Your task to perform on an android device: Open accessibility settings Image 0: 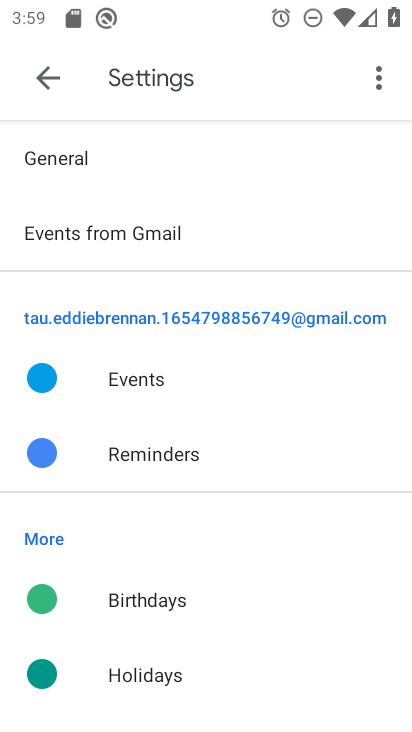
Step 0: press home button
Your task to perform on an android device: Open accessibility settings Image 1: 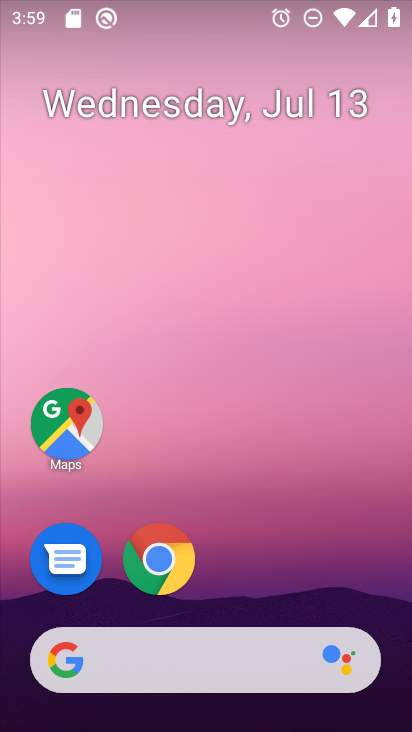
Step 1: drag from (362, 583) to (365, 126)
Your task to perform on an android device: Open accessibility settings Image 2: 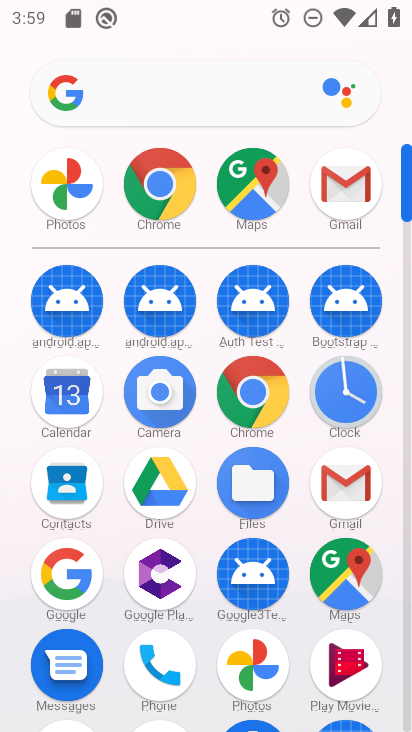
Step 2: drag from (372, 627) to (384, 384)
Your task to perform on an android device: Open accessibility settings Image 3: 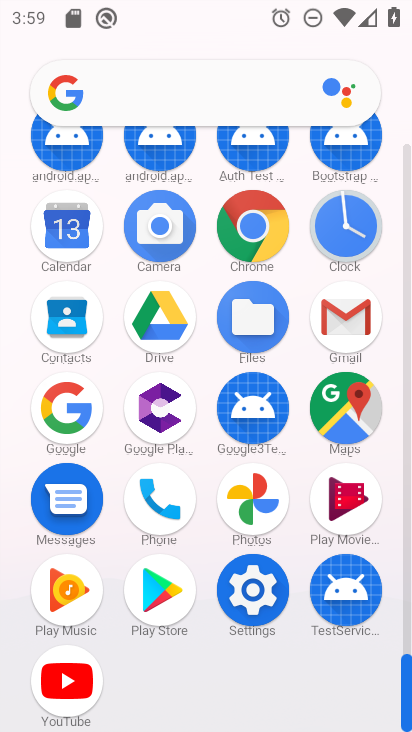
Step 3: click (260, 582)
Your task to perform on an android device: Open accessibility settings Image 4: 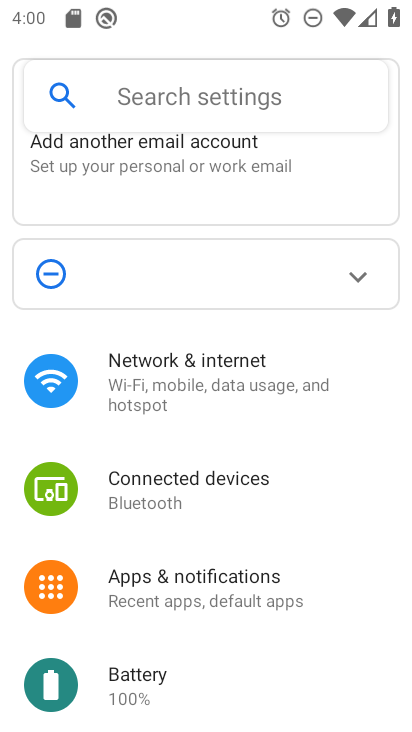
Step 4: drag from (343, 532) to (343, 464)
Your task to perform on an android device: Open accessibility settings Image 5: 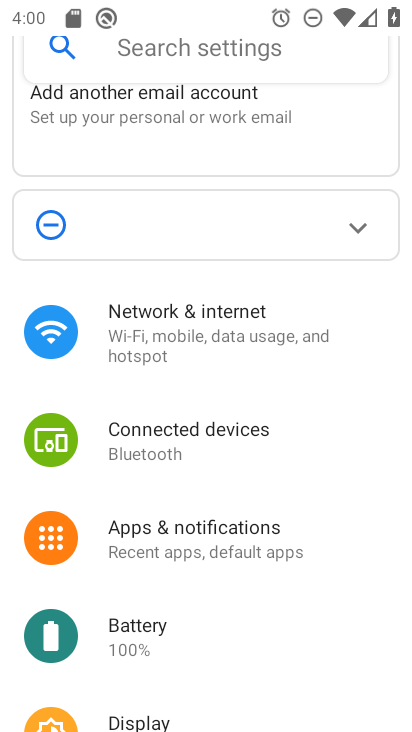
Step 5: drag from (334, 538) to (341, 444)
Your task to perform on an android device: Open accessibility settings Image 6: 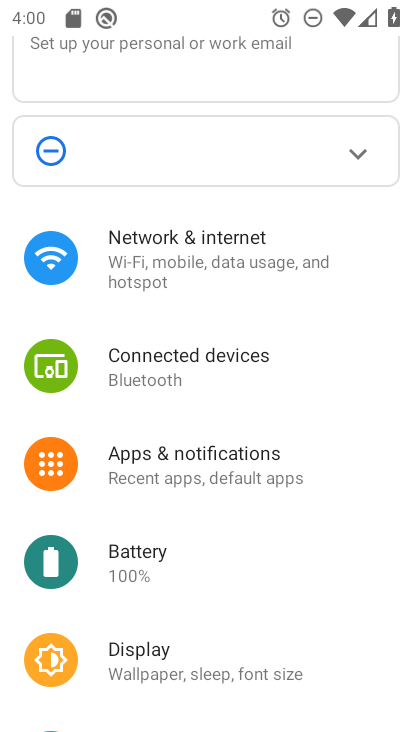
Step 6: drag from (342, 534) to (357, 417)
Your task to perform on an android device: Open accessibility settings Image 7: 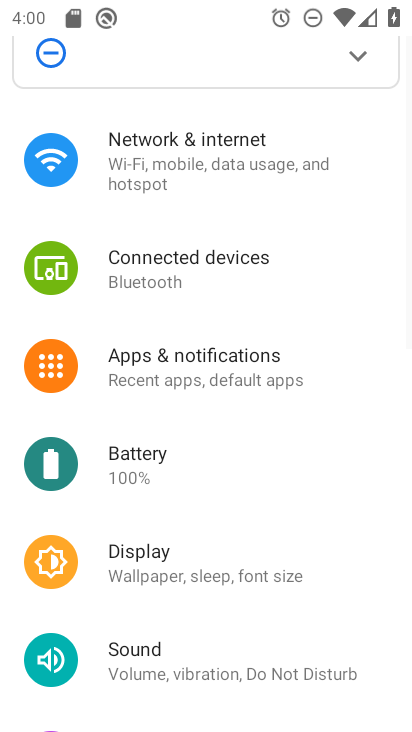
Step 7: drag from (348, 475) to (347, 392)
Your task to perform on an android device: Open accessibility settings Image 8: 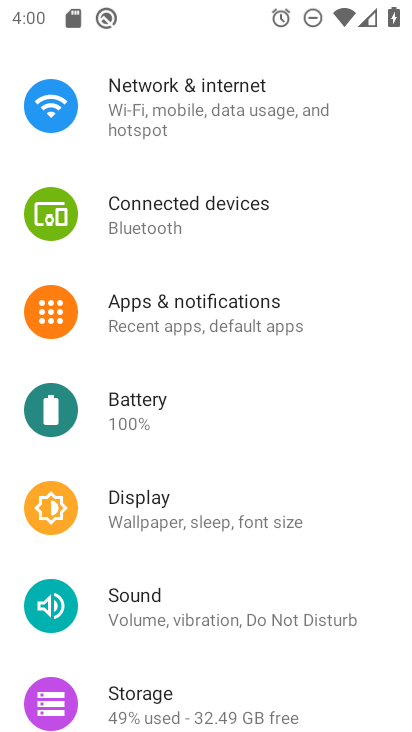
Step 8: drag from (343, 442) to (344, 378)
Your task to perform on an android device: Open accessibility settings Image 9: 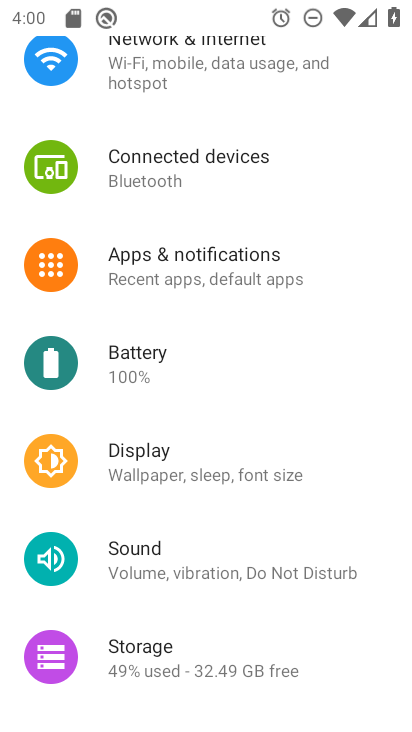
Step 9: drag from (342, 476) to (343, 402)
Your task to perform on an android device: Open accessibility settings Image 10: 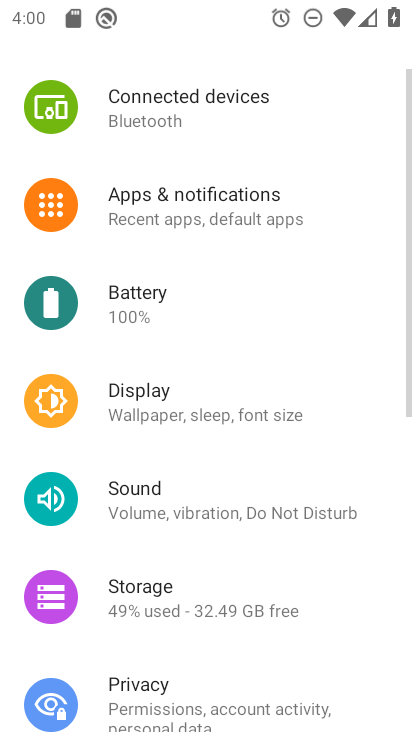
Step 10: drag from (343, 462) to (344, 386)
Your task to perform on an android device: Open accessibility settings Image 11: 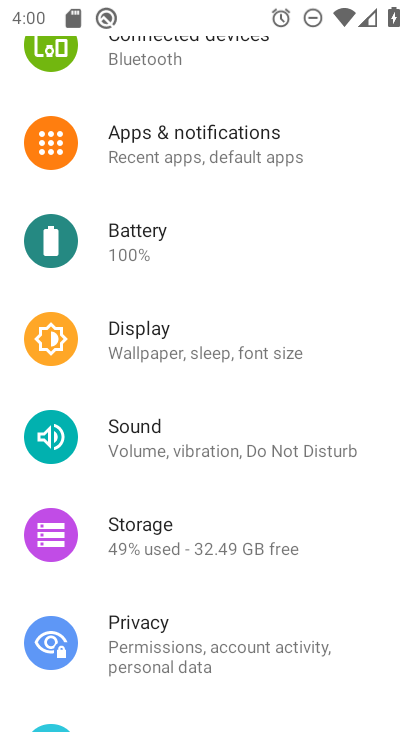
Step 11: drag from (337, 483) to (346, 409)
Your task to perform on an android device: Open accessibility settings Image 12: 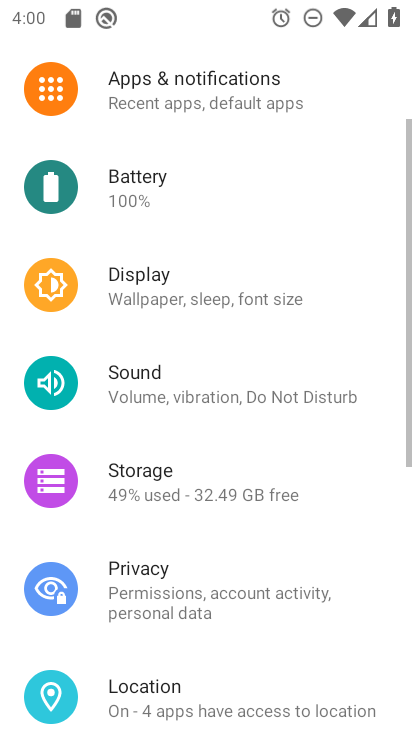
Step 12: drag from (341, 481) to (342, 403)
Your task to perform on an android device: Open accessibility settings Image 13: 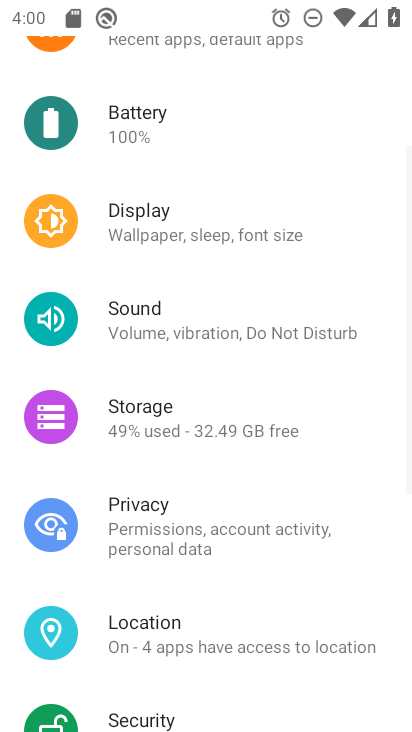
Step 13: drag from (342, 471) to (343, 381)
Your task to perform on an android device: Open accessibility settings Image 14: 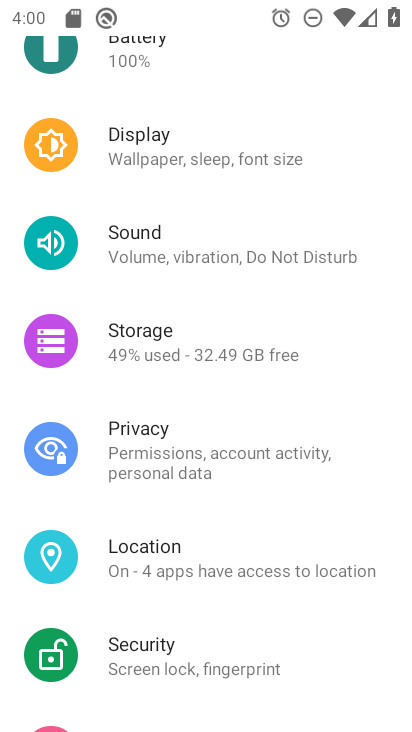
Step 14: drag from (328, 471) to (339, 398)
Your task to perform on an android device: Open accessibility settings Image 15: 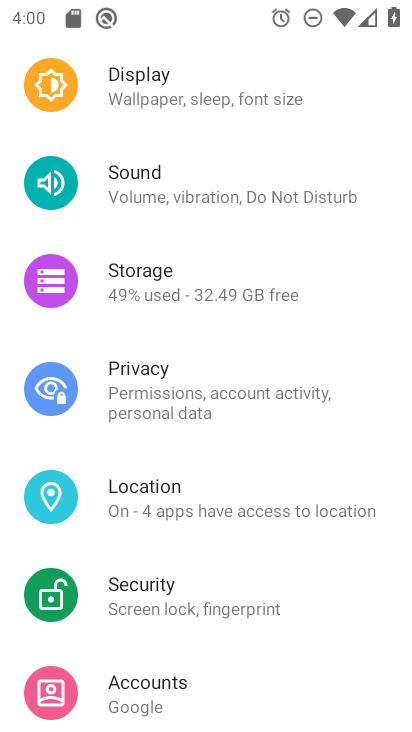
Step 15: drag from (339, 472) to (339, 368)
Your task to perform on an android device: Open accessibility settings Image 16: 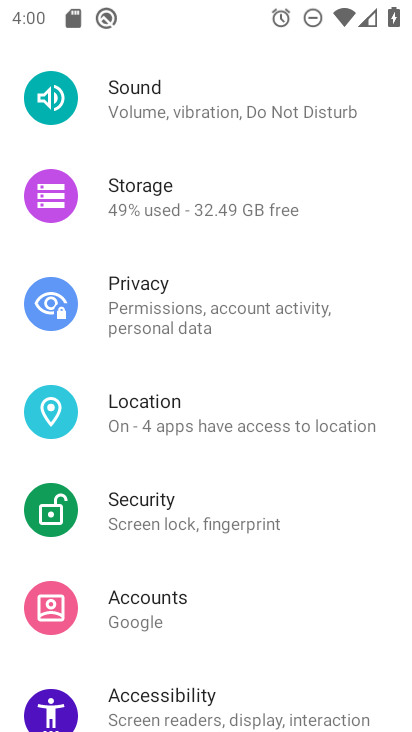
Step 16: drag from (334, 489) to (340, 345)
Your task to perform on an android device: Open accessibility settings Image 17: 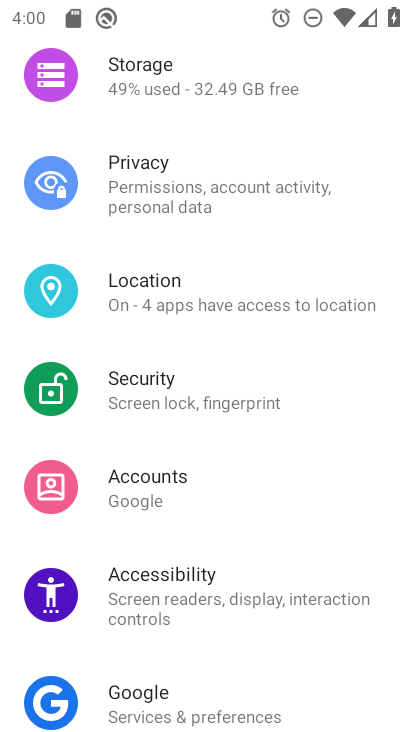
Step 17: drag from (326, 462) to (323, 212)
Your task to perform on an android device: Open accessibility settings Image 18: 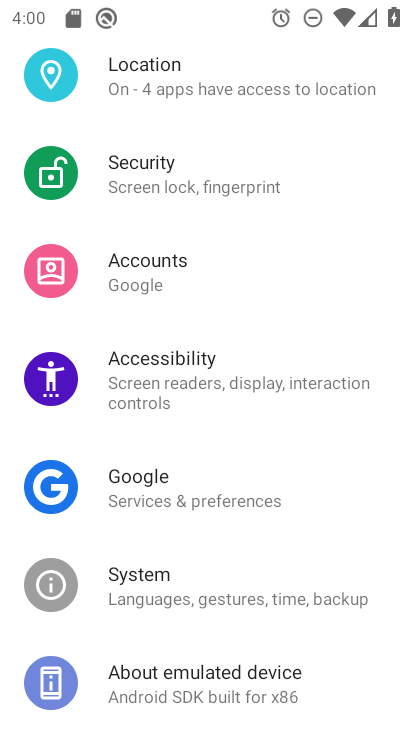
Step 18: click (311, 379)
Your task to perform on an android device: Open accessibility settings Image 19: 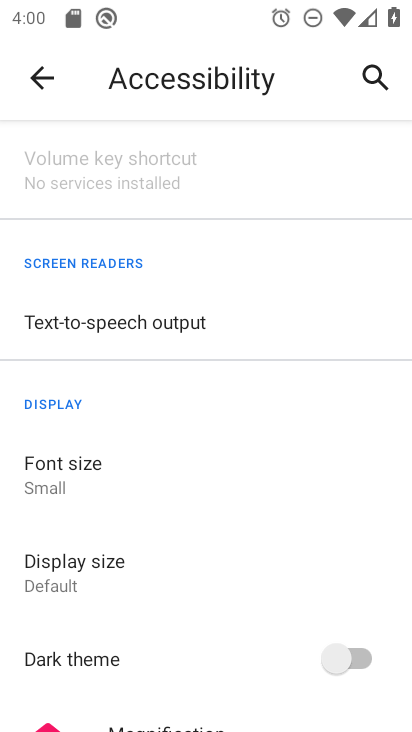
Step 19: task complete